Your task to perform on an android device: turn notification dots off Image 0: 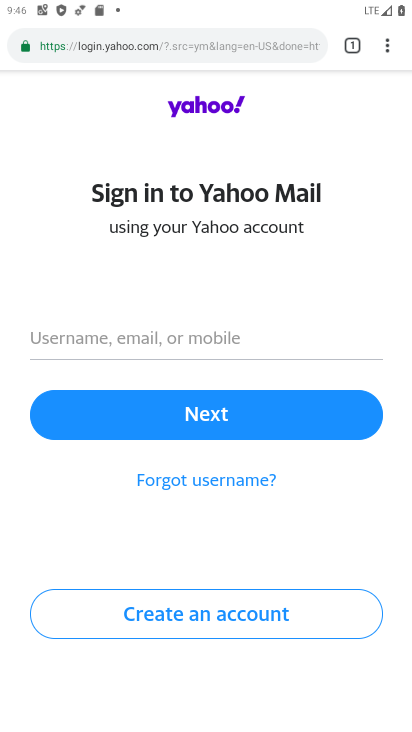
Step 0: press home button
Your task to perform on an android device: turn notification dots off Image 1: 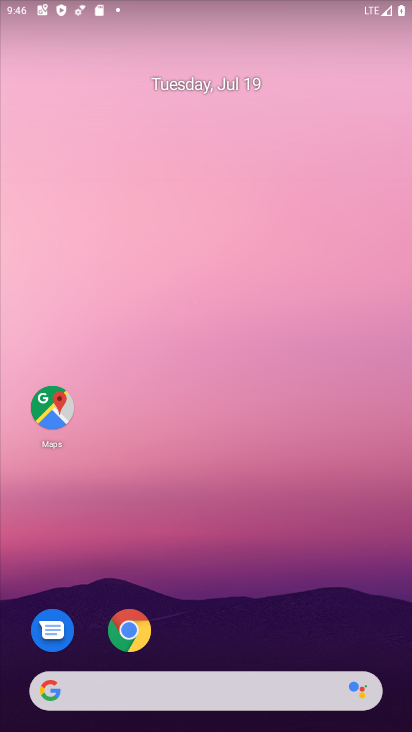
Step 1: drag from (236, 652) to (347, 101)
Your task to perform on an android device: turn notification dots off Image 2: 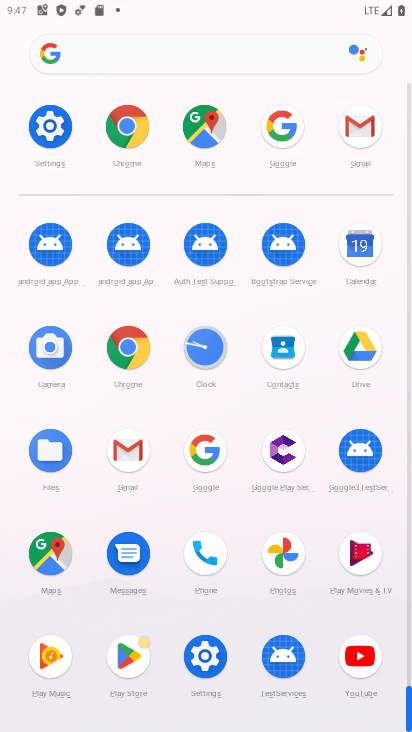
Step 2: click (198, 676)
Your task to perform on an android device: turn notification dots off Image 3: 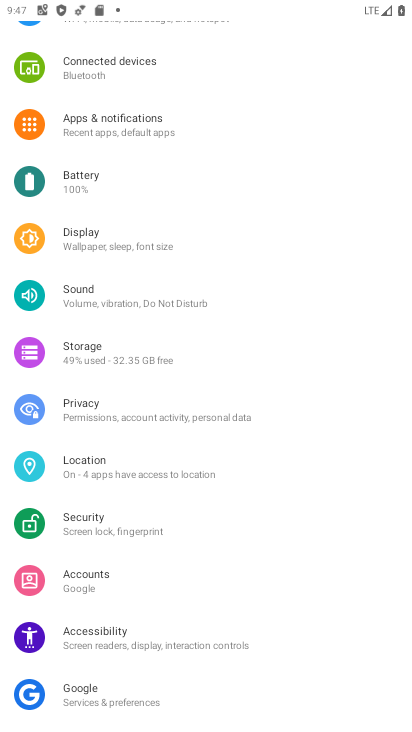
Step 3: click (135, 124)
Your task to perform on an android device: turn notification dots off Image 4: 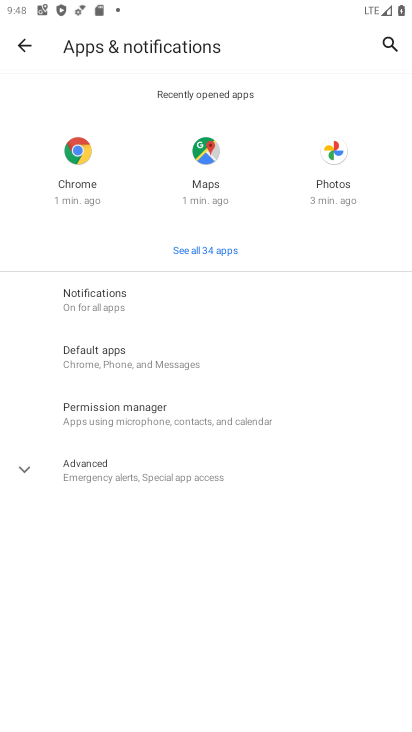
Step 4: click (131, 305)
Your task to perform on an android device: turn notification dots off Image 5: 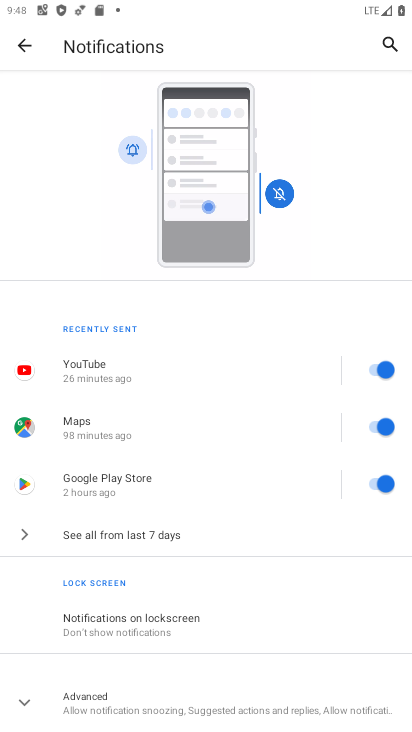
Step 5: drag from (136, 583) to (175, 275)
Your task to perform on an android device: turn notification dots off Image 6: 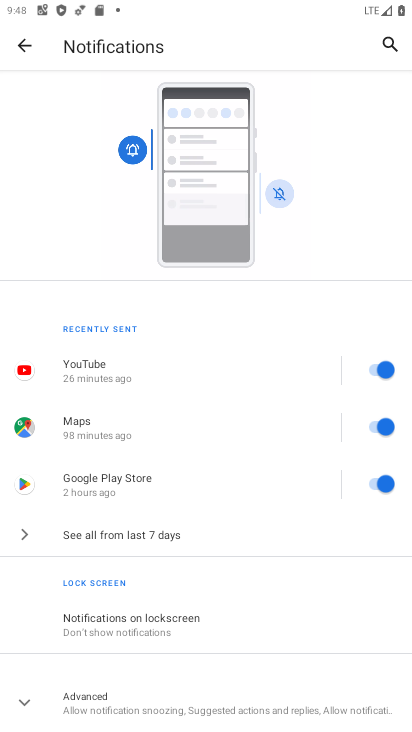
Step 6: click (175, 714)
Your task to perform on an android device: turn notification dots off Image 7: 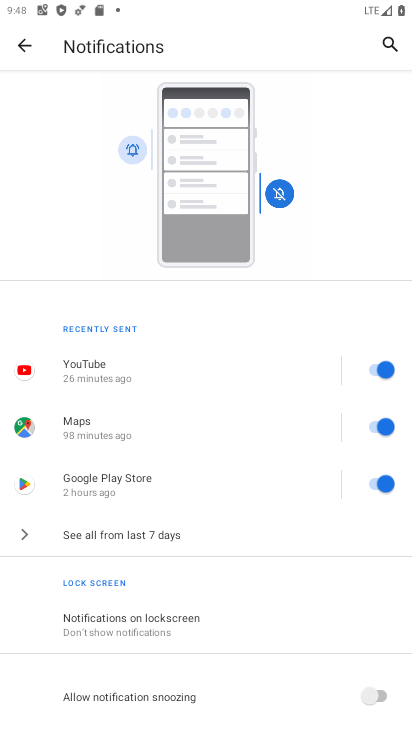
Step 7: drag from (185, 590) to (346, 195)
Your task to perform on an android device: turn notification dots off Image 8: 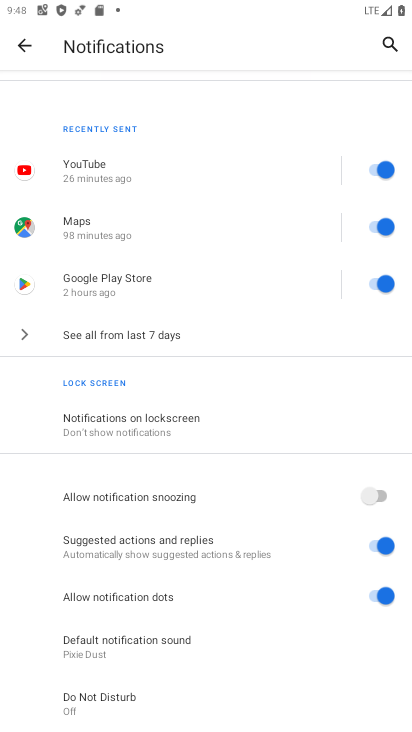
Step 8: click (377, 598)
Your task to perform on an android device: turn notification dots off Image 9: 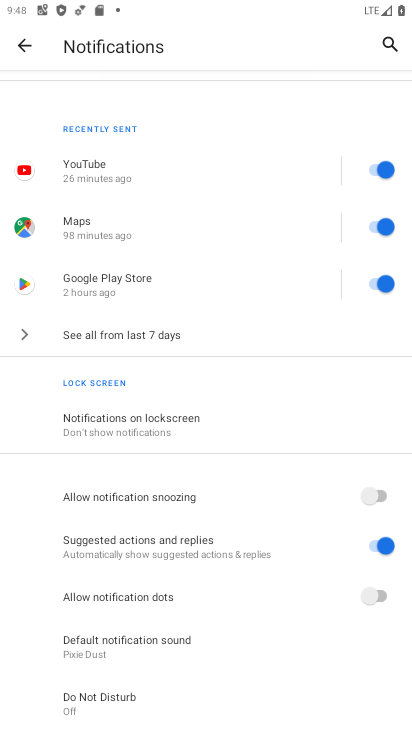
Step 9: task complete